Your task to perform on an android device: turn off airplane mode Image 0: 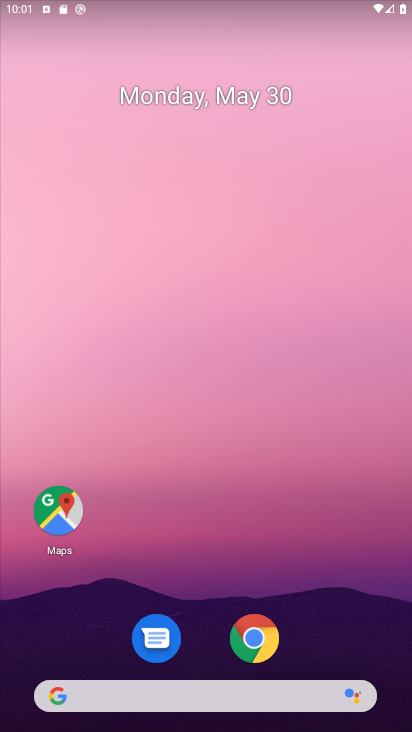
Step 0: click (250, 416)
Your task to perform on an android device: turn off airplane mode Image 1: 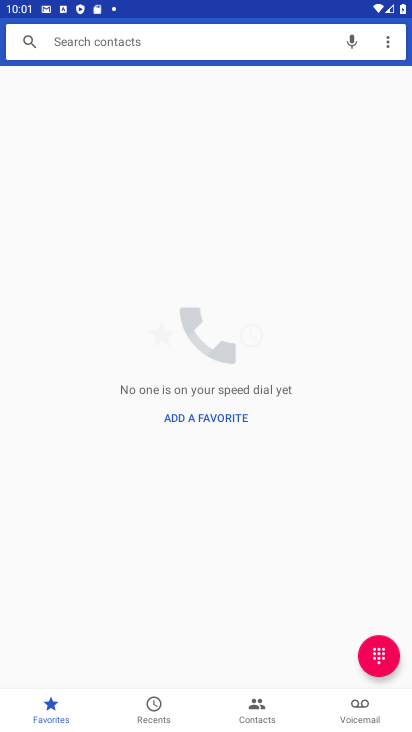
Step 1: press home button
Your task to perform on an android device: turn off airplane mode Image 2: 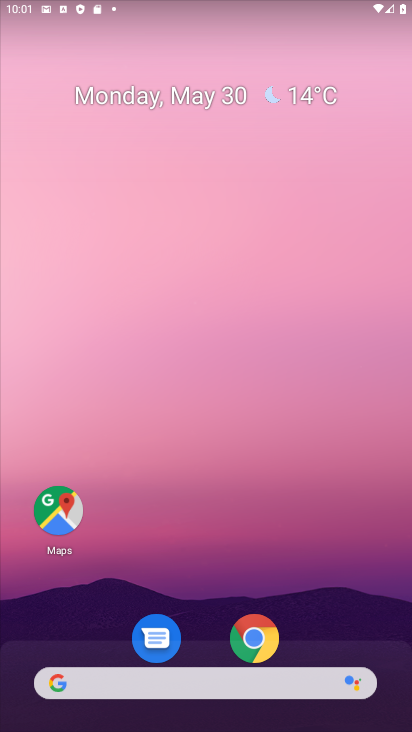
Step 2: drag from (209, 597) to (263, 161)
Your task to perform on an android device: turn off airplane mode Image 3: 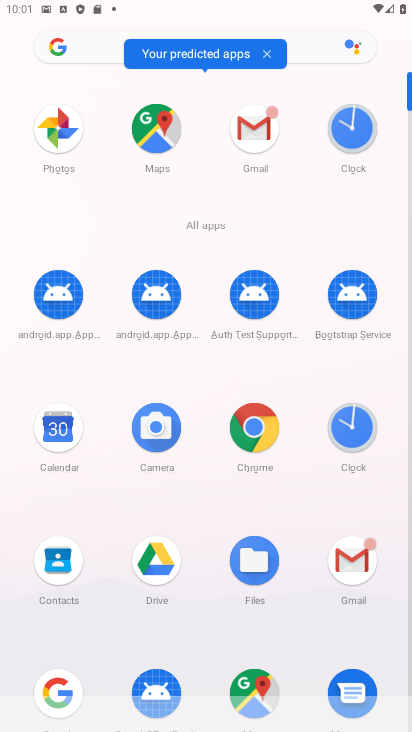
Step 3: drag from (198, 622) to (250, 218)
Your task to perform on an android device: turn off airplane mode Image 4: 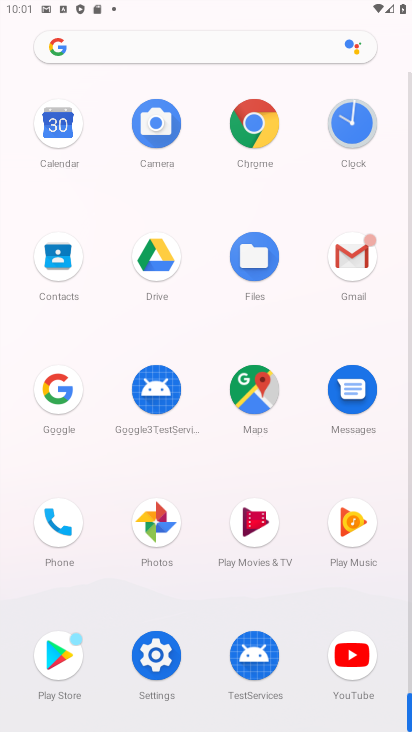
Step 4: click (161, 645)
Your task to perform on an android device: turn off airplane mode Image 5: 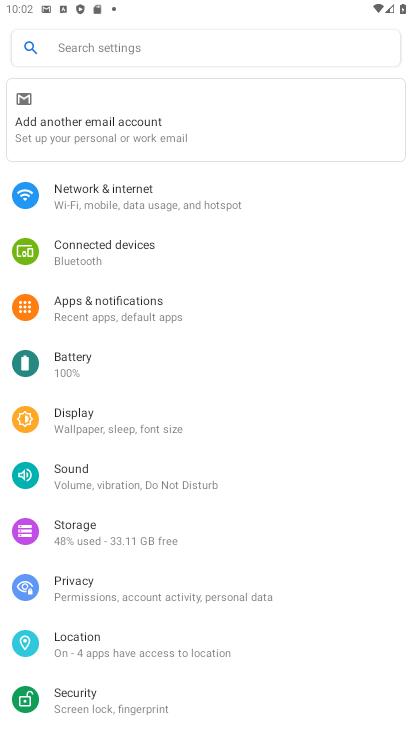
Step 5: click (180, 199)
Your task to perform on an android device: turn off airplane mode Image 6: 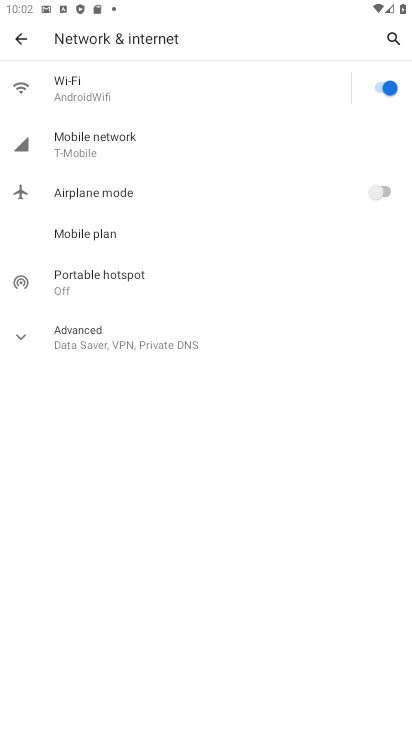
Step 6: task complete